Your task to perform on an android device: Search for floor lamps on article.com Image 0: 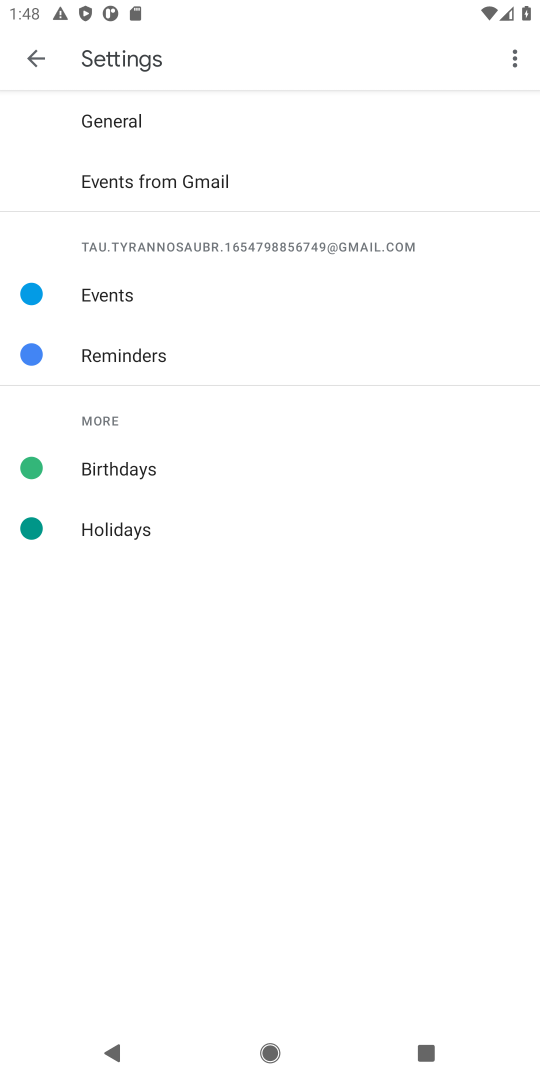
Step 0: press home button
Your task to perform on an android device: Search for floor lamps on article.com Image 1: 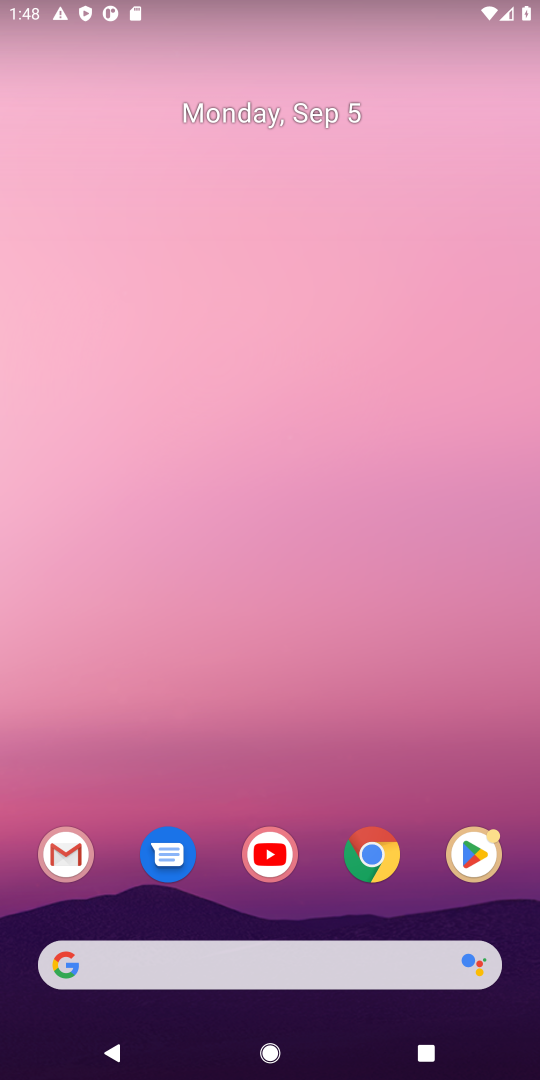
Step 1: click (395, 967)
Your task to perform on an android device: Search for floor lamps on article.com Image 2: 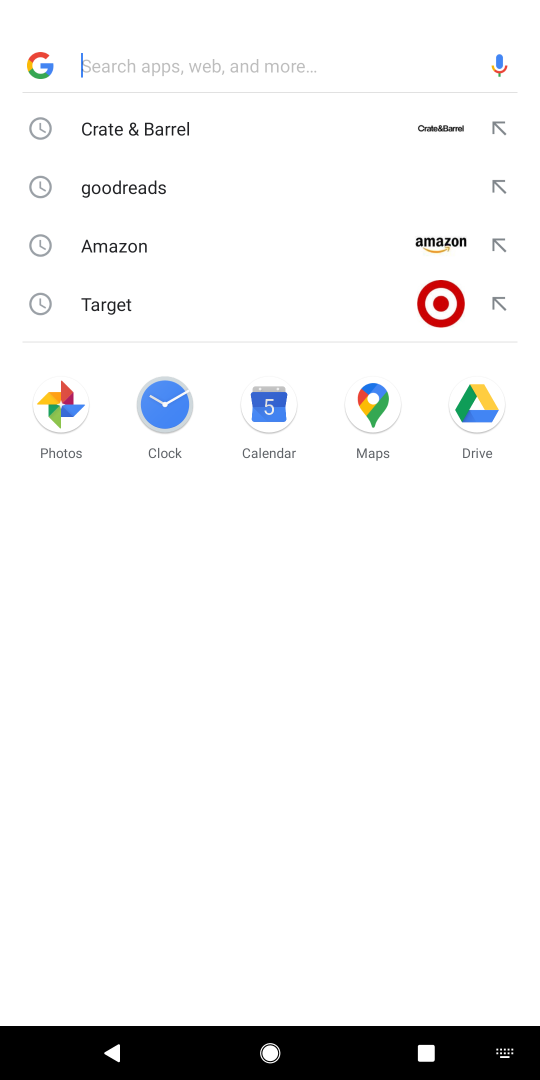
Step 2: type "article.com"
Your task to perform on an android device: Search for floor lamps on article.com Image 3: 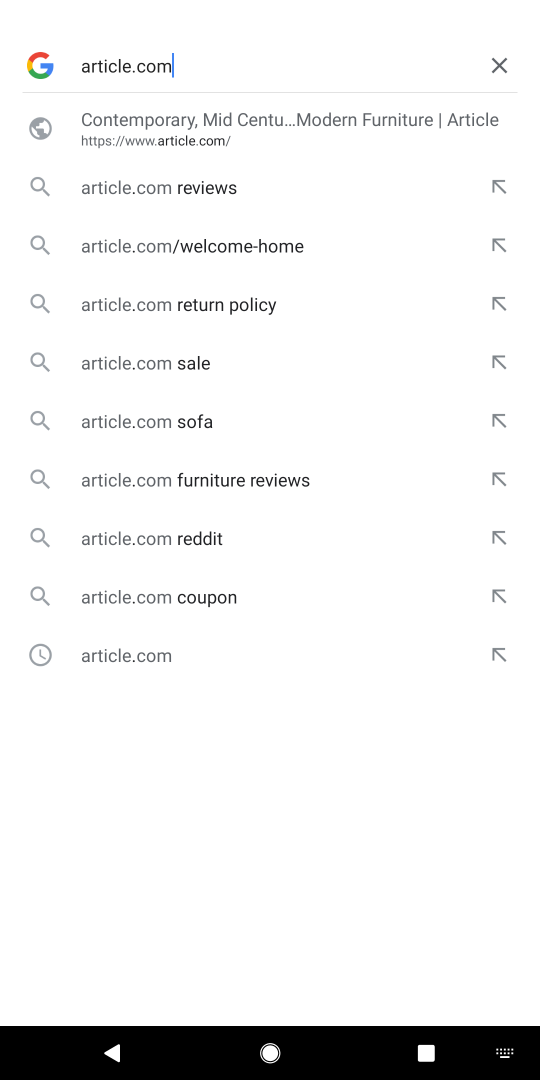
Step 3: press enter
Your task to perform on an android device: Search for floor lamps on article.com Image 4: 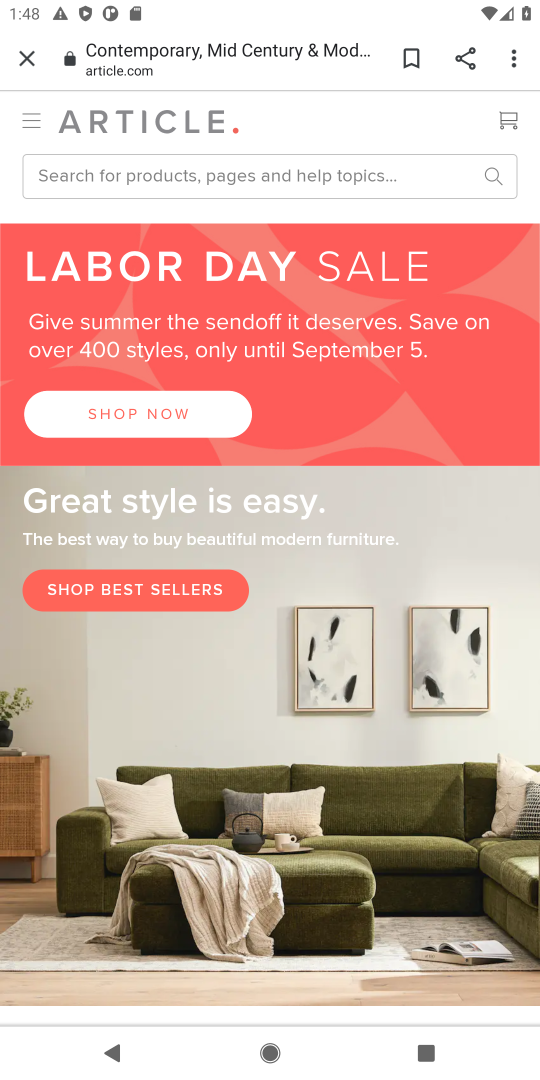
Step 4: click (138, 170)
Your task to perform on an android device: Search for floor lamps on article.com Image 5: 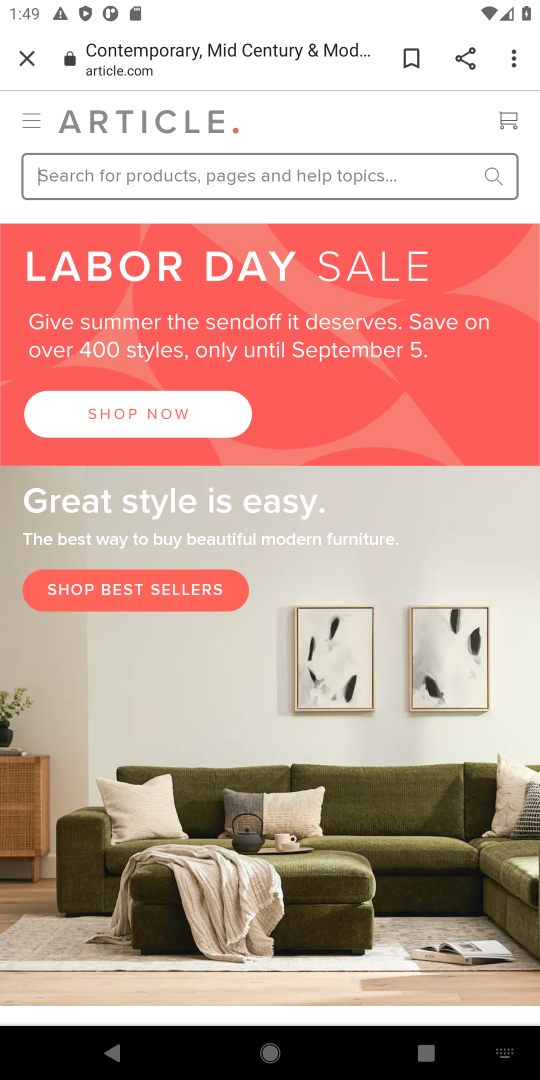
Step 5: press enter
Your task to perform on an android device: Search for floor lamps on article.com Image 6: 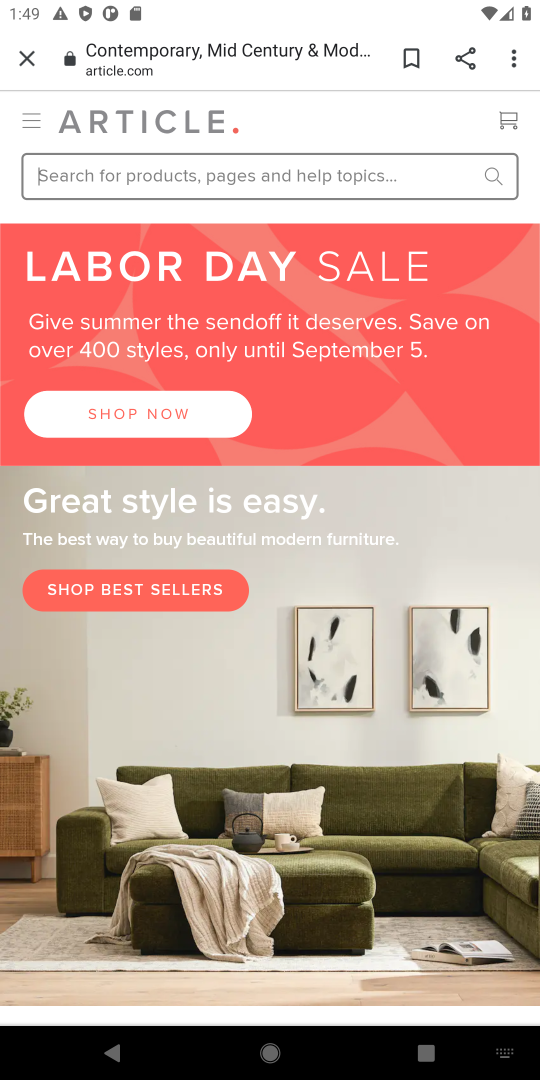
Step 6: type "floor lamps"
Your task to perform on an android device: Search for floor lamps on article.com Image 7: 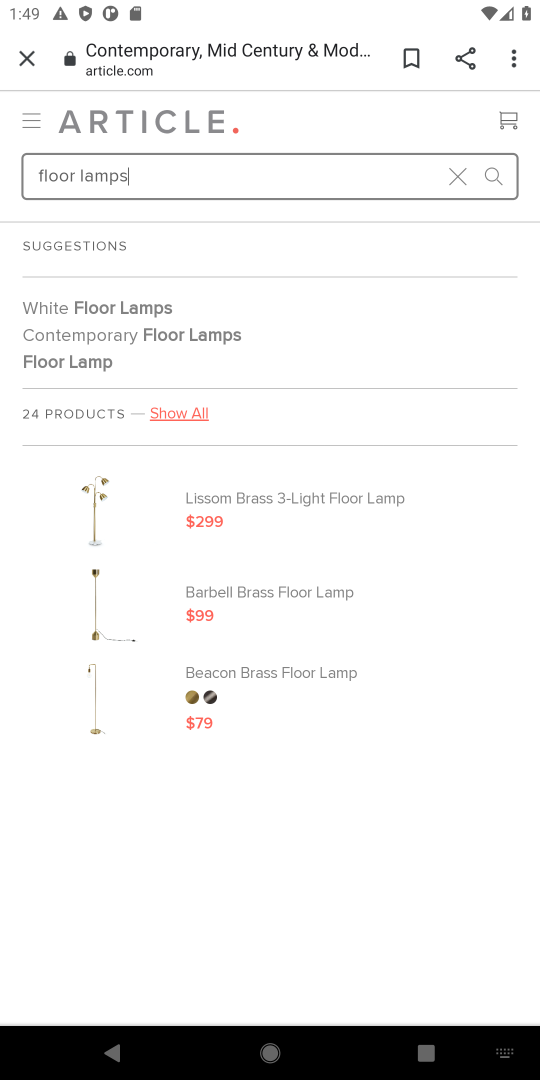
Step 7: task complete